Your task to perform on an android device: set an alarm Image 0: 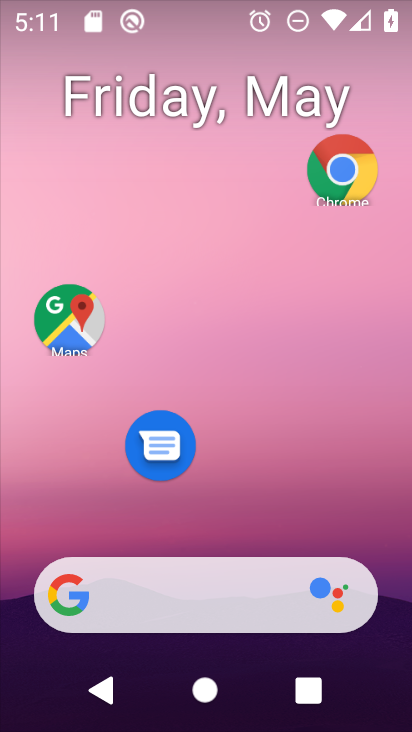
Step 0: drag from (237, 547) to (185, 47)
Your task to perform on an android device: set an alarm Image 1: 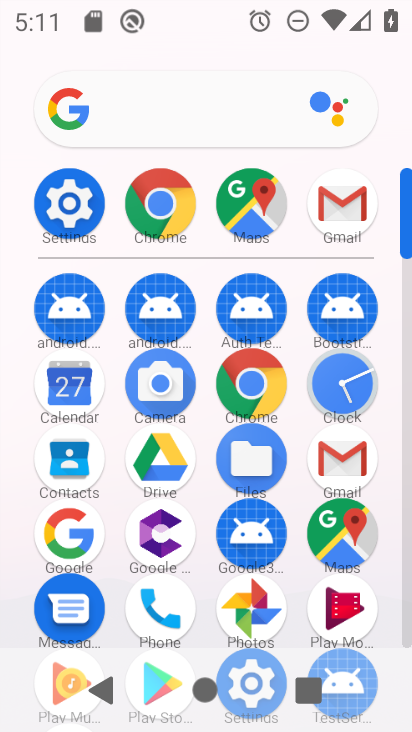
Step 1: click (336, 390)
Your task to perform on an android device: set an alarm Image 2: 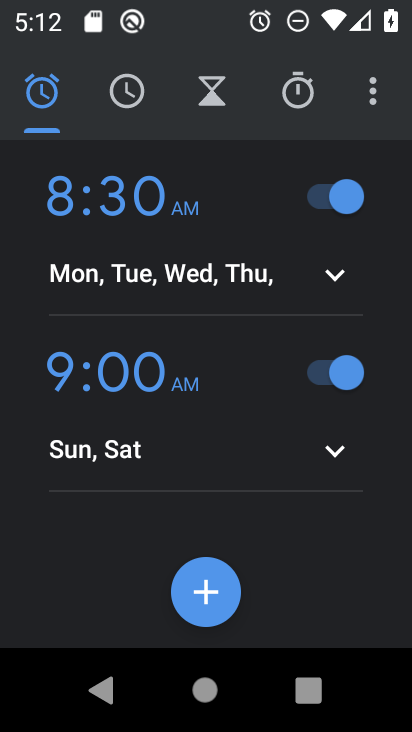
Step 2: click (107, 386)
Your task to perform on an android device: set an alarm Image 3: 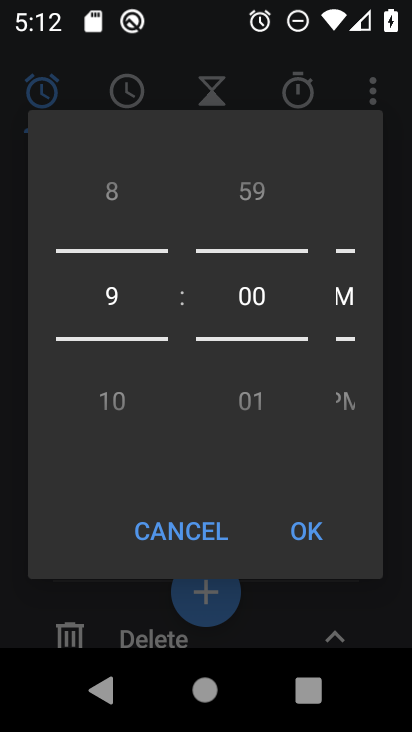
Step 3: drag from (124, 314) to (109, 211)
Your task to perform on an android device: set an alarm Image 4: 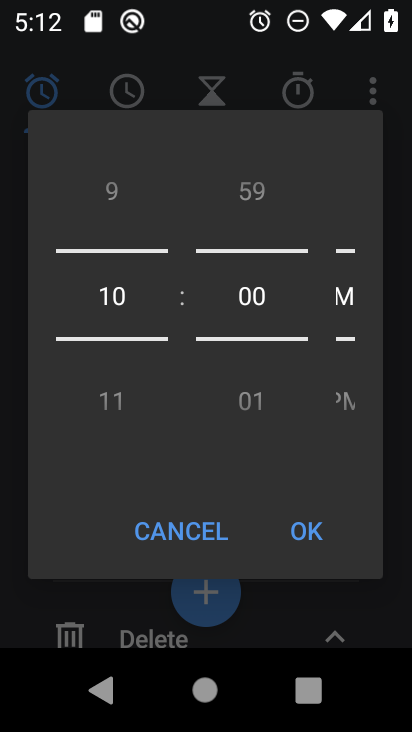
Step 4: click (313, 543)
Your task to perform on an android device: set an alarm Image 5: 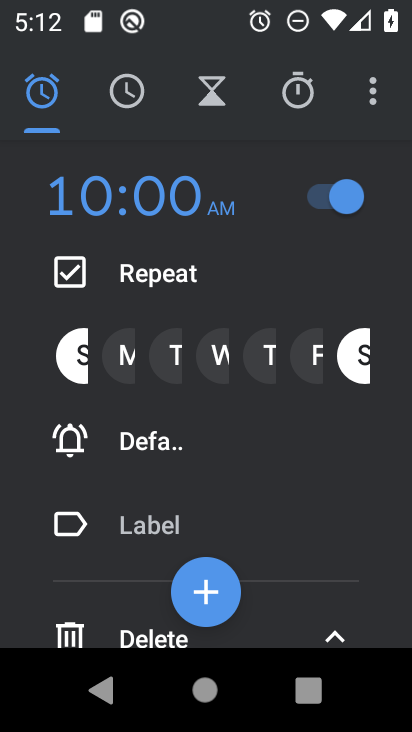
Step 5: click (337, 640)
Your task to perform on an android device: set an alarm Image 6: 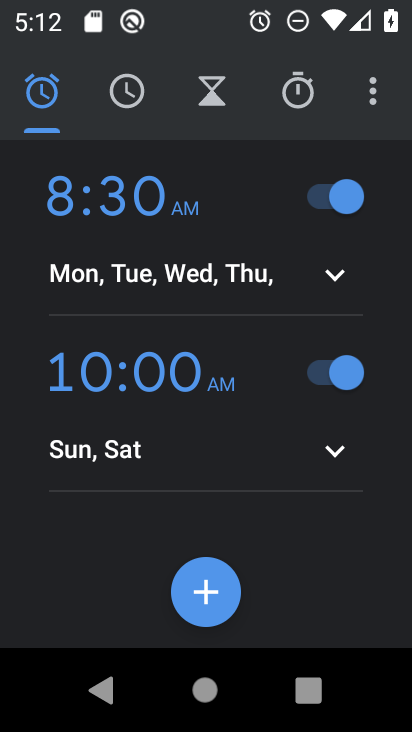
Step 6: task complete